Your task to perform on an android device: star an email in the gmail app Image 0: 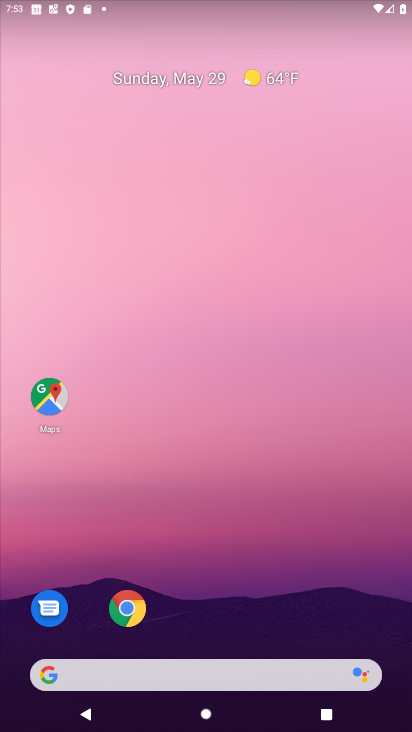
Step 0: drag from (239, 519) to (172, 42)
Your task to perform on an android device: star an email in the gmail app Image 1: 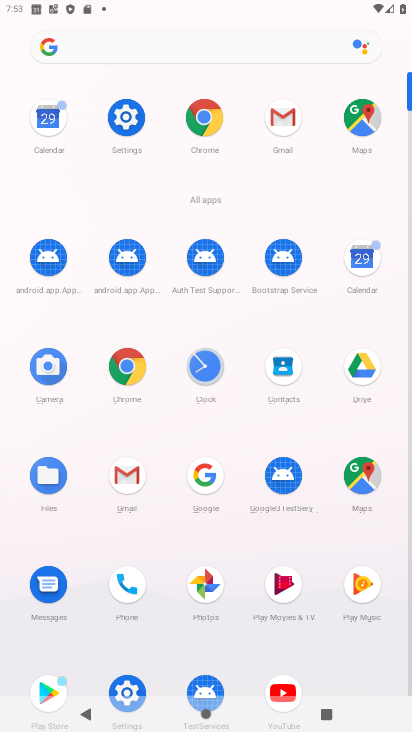
Step 1: click (283, 119)
Your task to perform on an android device: star an email in the gmail app Image 2: 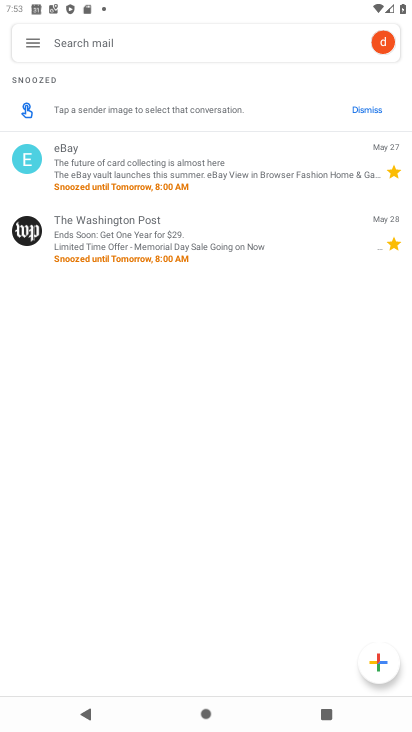
Step 2: click (27, 33)
Your task to perform on an android device: star an email in the gmail app Image 3: 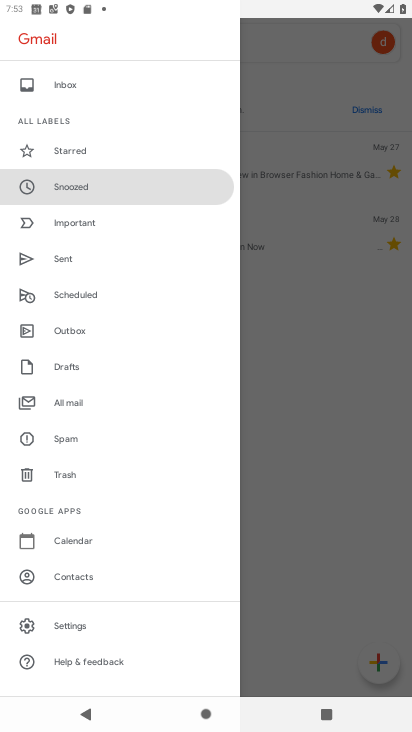
Step 3: click (69, 399)
Your task to perform on an android device: star an email in the gmail app Image 4: 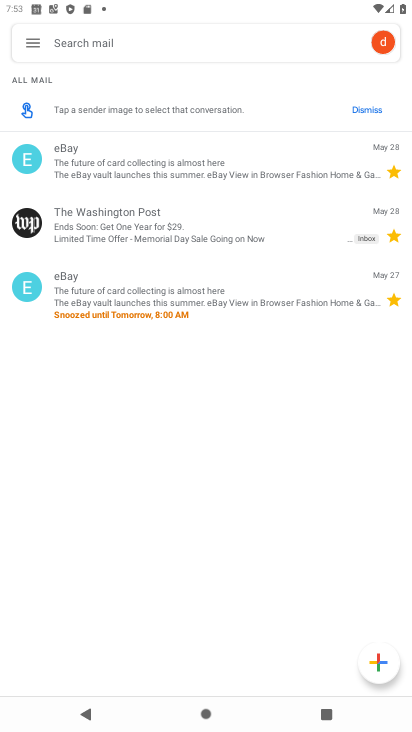
Step 4: task complete